Your task to perform on an android device: open a new tab in the chrome app Image 0: 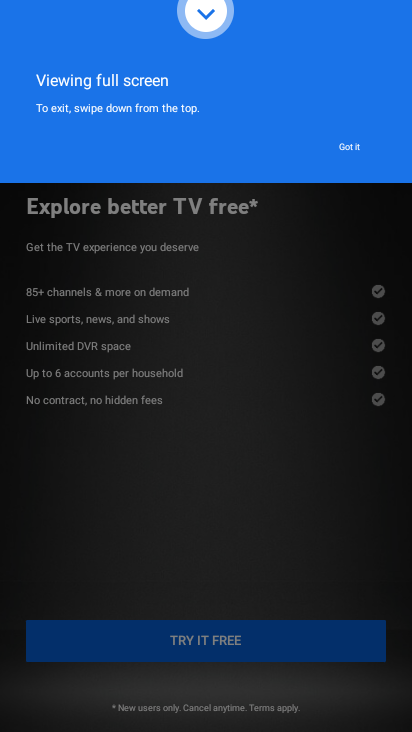
Step 0: drag from (186, 481) to (272, 108)
Your task to perform on an android device: open a new tab in the chrome app Image 1: 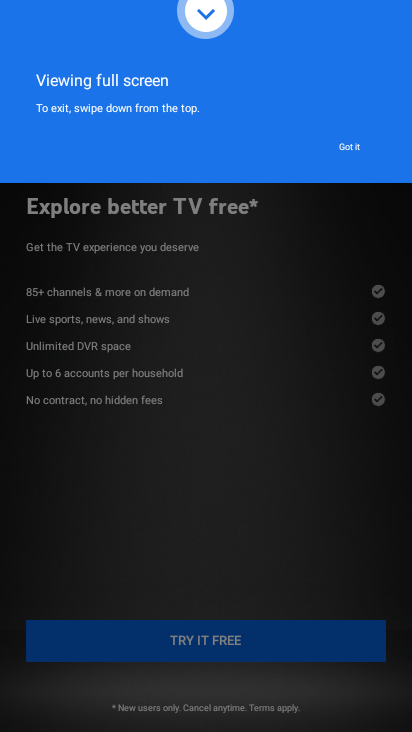
Step 1: press home button
Your task to perform on an android device: open a new tab in the chrome app Image 2: 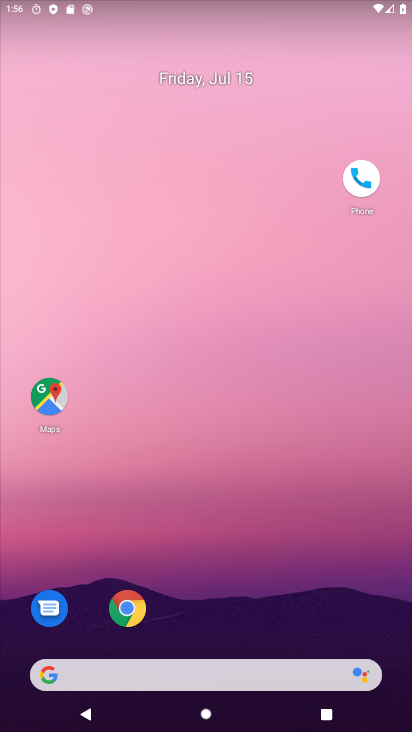
Step 2: drag from (237, 660) to (313, 193)
Your task to perform on an android device: open a new tab in the chrome app Image 3: 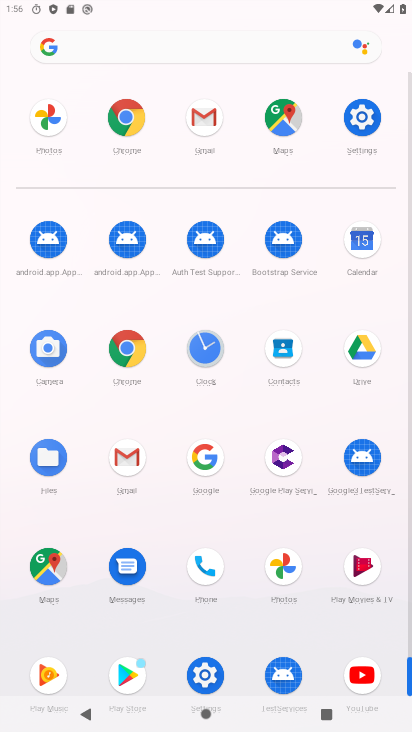
Step 3: click (125, 352)
Your task to perform on an android device: open a new tab in the chrome app Image 4: 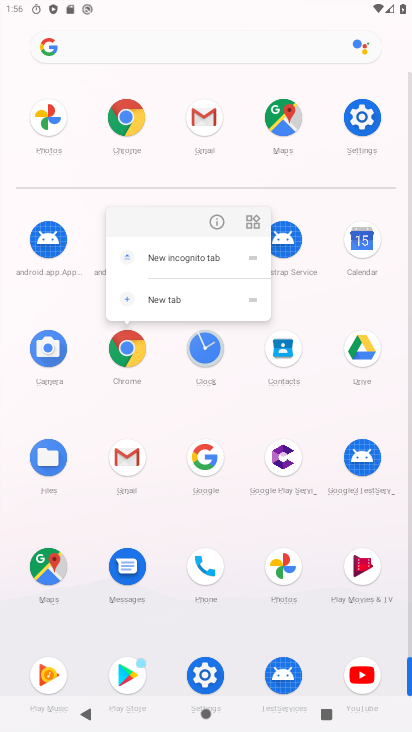
Step 4: click (215, 224)
Your task to perform on an android device: open a new tab in the chrome app Image 5: 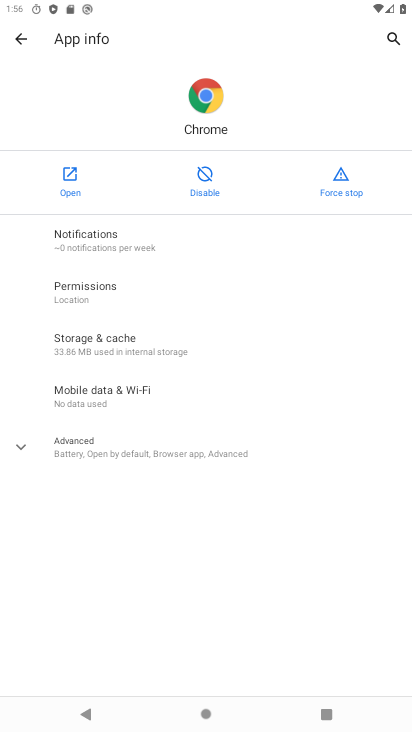
Step 5: click (68, 172)
Your task to perform on an android device: open a new tab in the chrome app Image 6: 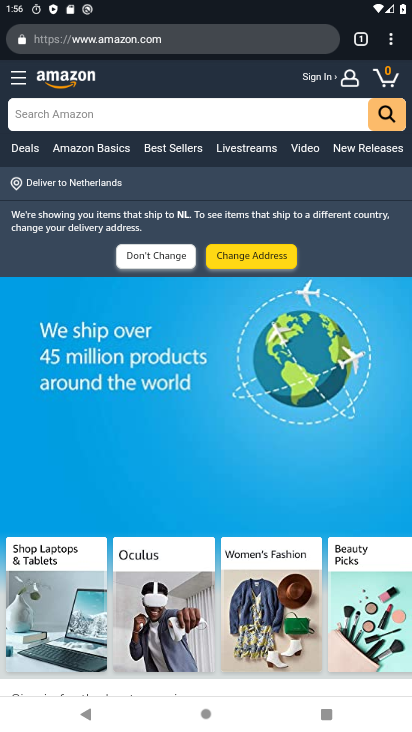
Step 6: task complete